Your task to perform on an android device: turn off javascript in the chrome app Image 0: 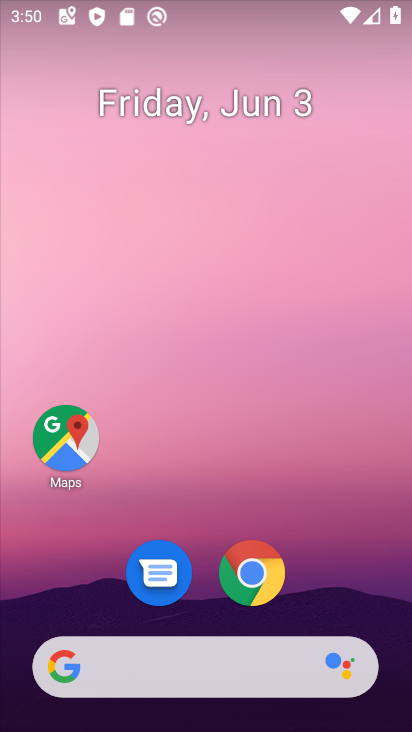
Step 0: click (247, 583)
Your task to perform on an android device: turn off javascript in the chrome app Image 1: 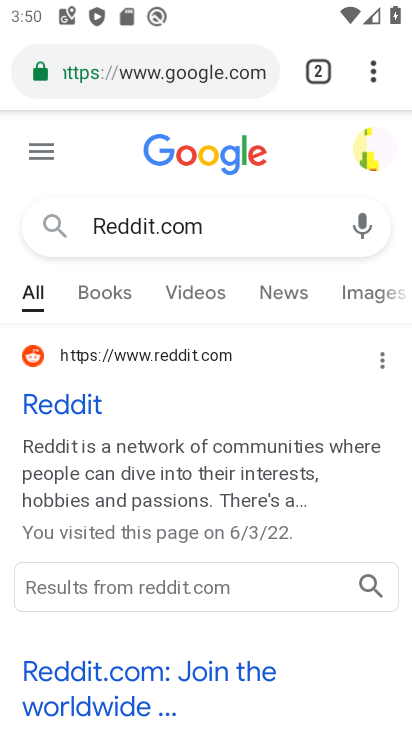
Step 1: click (373, 66)
Your task to perform on an android device: turn off javascript in the chrome app Image 2: 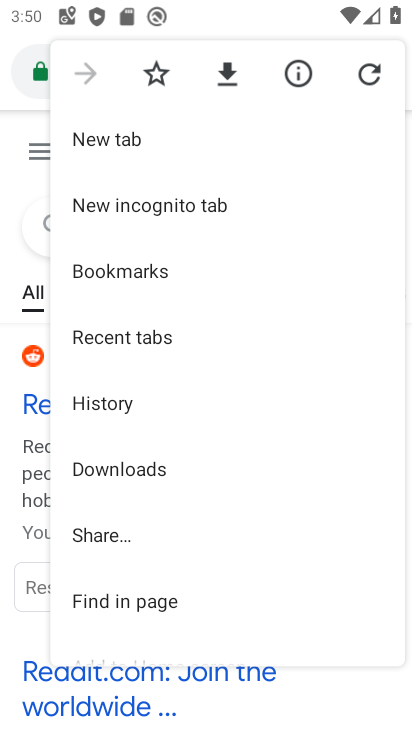
Step 2: drag from (262, 561) to (278, 322)
Your task to perform on an android device: turn off javascript in the chrome app Image 3: 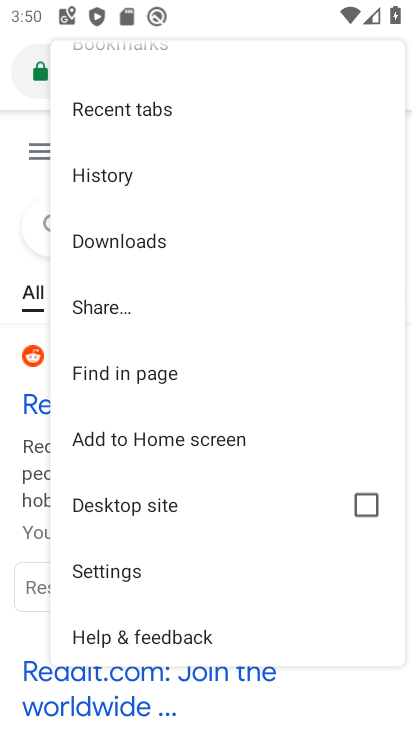
Step 3: click (101, 572)
Your task to perform on an android device: turn off javascript in the chrome app Image 4: 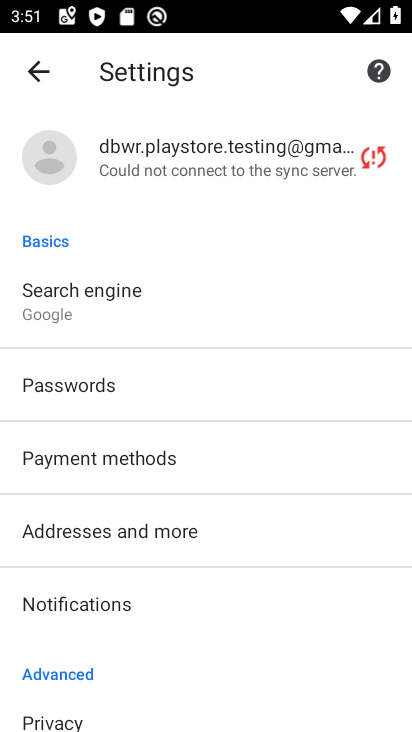
Step 4: drag from (189, 689) to (199, 430)
Your task to perform on an android device: turn off javascript in the chrome app Image 5: 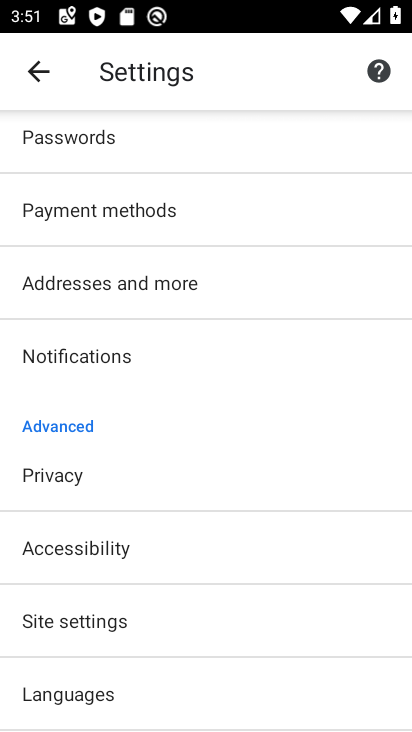
Step 5: click (89, 618)
Your task to perform on an android device: turn off javascript in the chrome app Image 6: 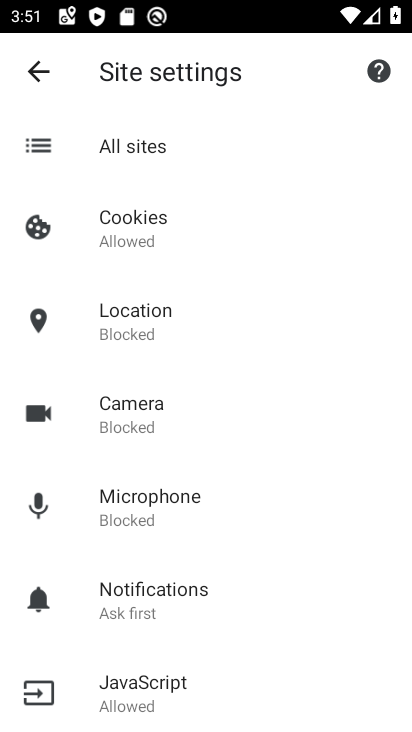
Step 6: click (153, 676)
Your task to perform on an android device: turn off javascript in the chrome app Image 7: 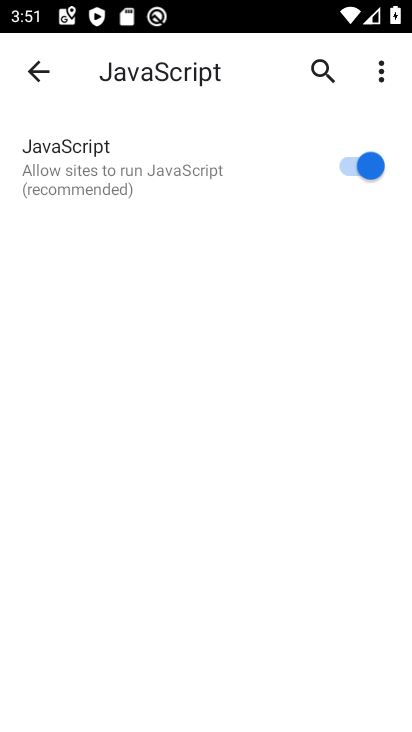
Step 7: click (352, 161)
Your task to perform on an android device: turn off javascript in the chrome app Image 8: 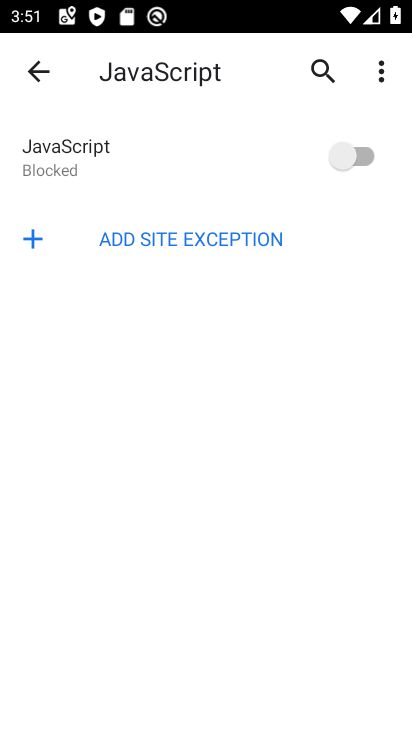
Step 8: task complete